Your task to perform on an android device: open sync settings in chrome Image 0: 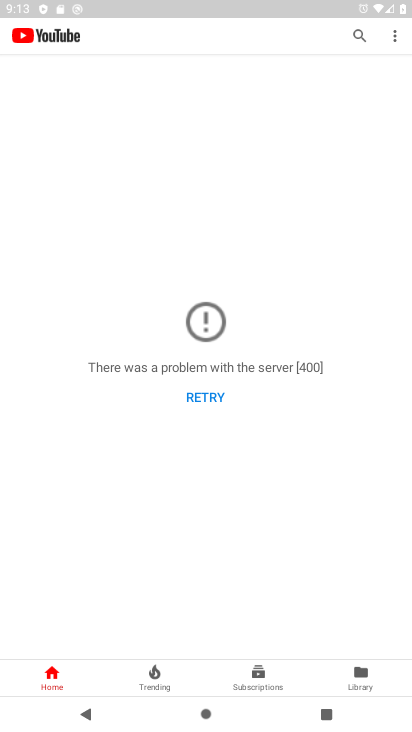
Step 0: press back button
Your task to perform on an android device: open sync settings in chrome Image 1: 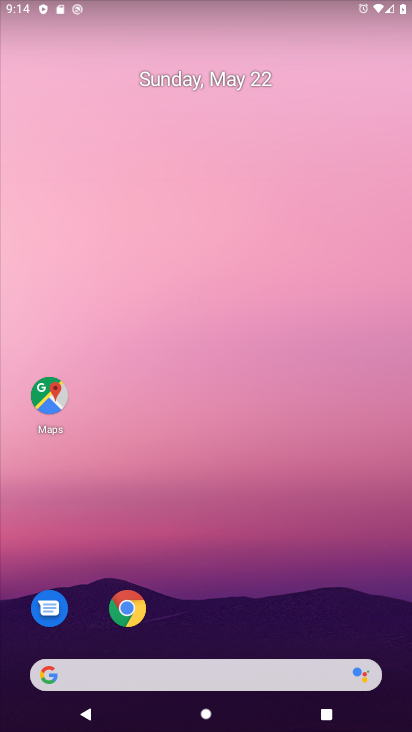
Step 1: drag from (217, 612) to (7, 47)
Your task to perform on an android device: open sync settings in chrome Image 2: 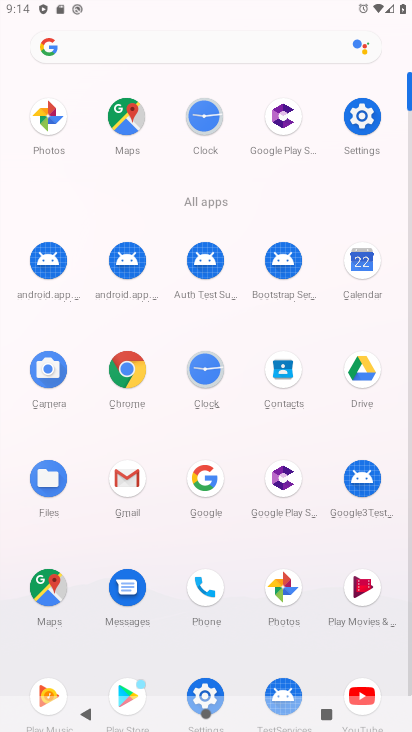
Step 2: click (128, 367)
Your task to perform on an android device: open sync settings in chrome Image 3: 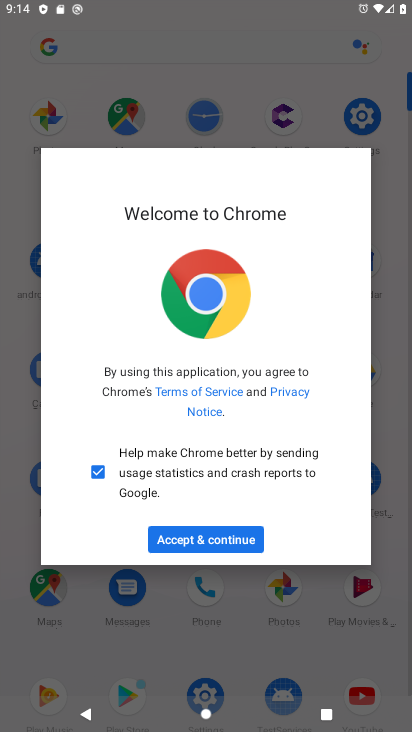
Step 3: click (185, 533)
Your task to perform on an android device: open sync settings in chrome Image 4: 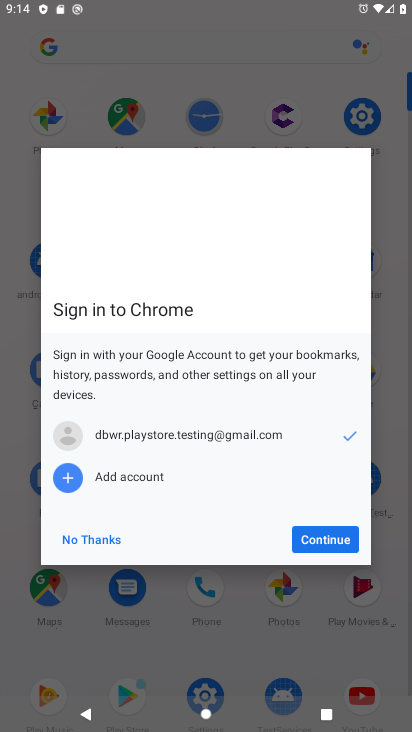
Step 4: click (331, 546)
Your task to perform on an android device: open sync settings in chrome Image 5: 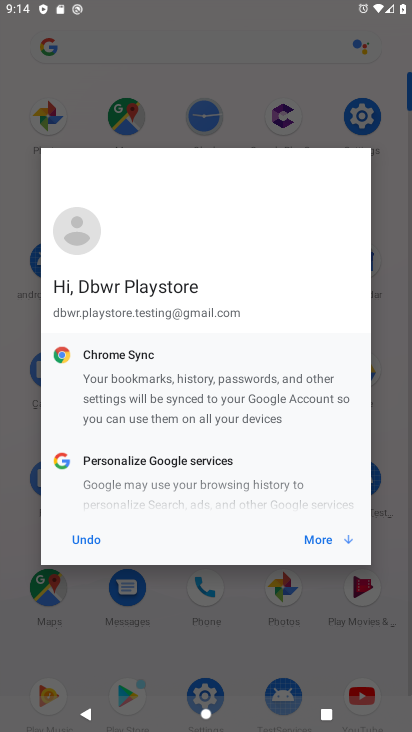
Step 5: click (321, 535)
Your task to perform on an android device: open sync settings in chrome Image 6: 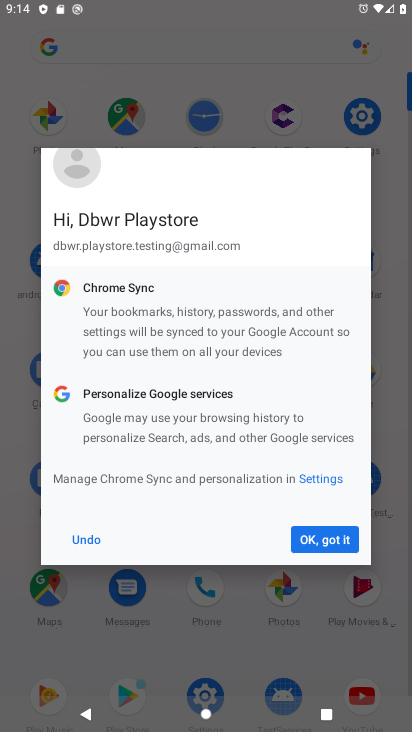
Step 6: click (321, 535)
Your task to perform on an android device: open sync settings in chrome Image 7: 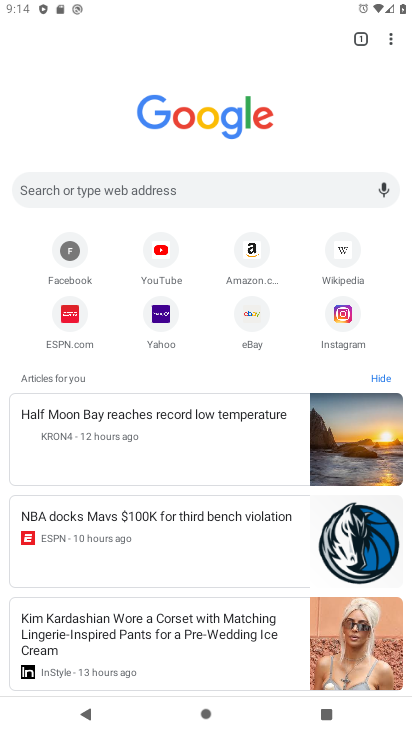
Step 7: drag from (394, 35) to (238, 331)
Your task to perform on an android device: open sync settings in chrome Image 8: 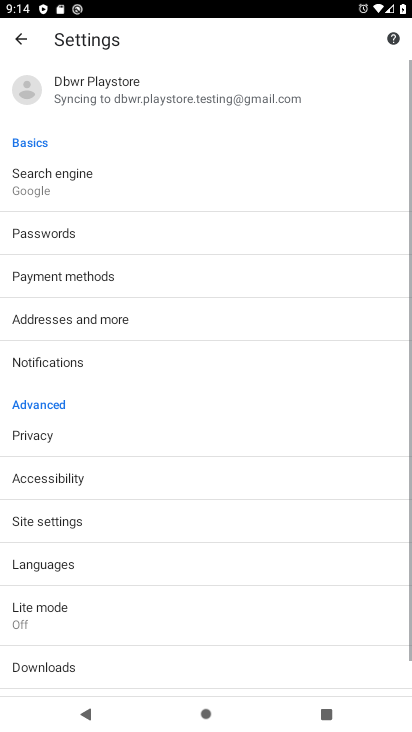
Step 8: click (78, 67)
Your task to perform on an android device: open sync settings in chrome Image 9: 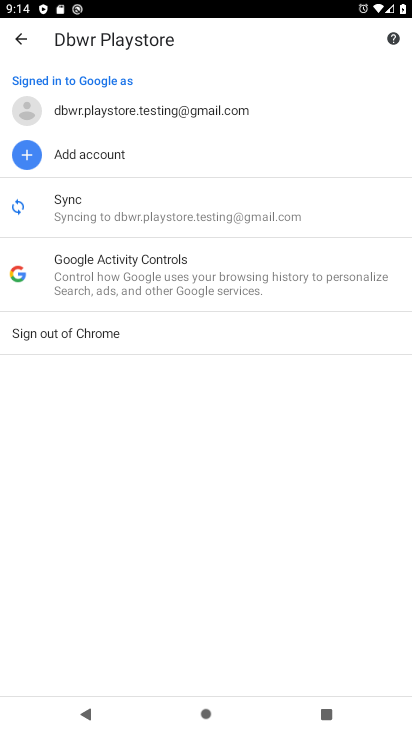
Step 9: click (102, 192)
Your task to perform on an android device: open sync settings in chrome Image 10: 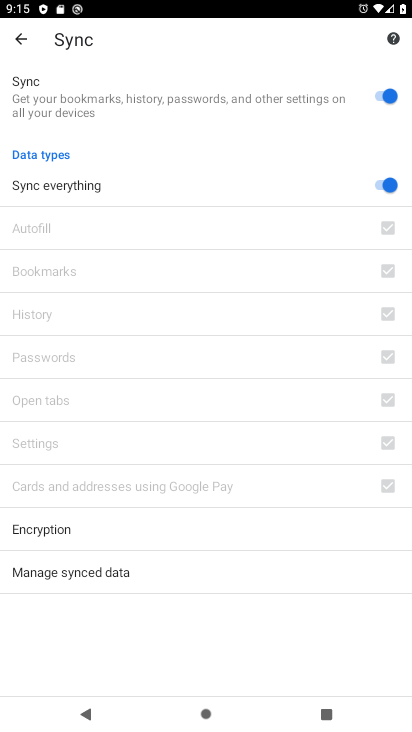
Step 10: task complete